Your task to perform on an android device: What is the news today? Image 0: 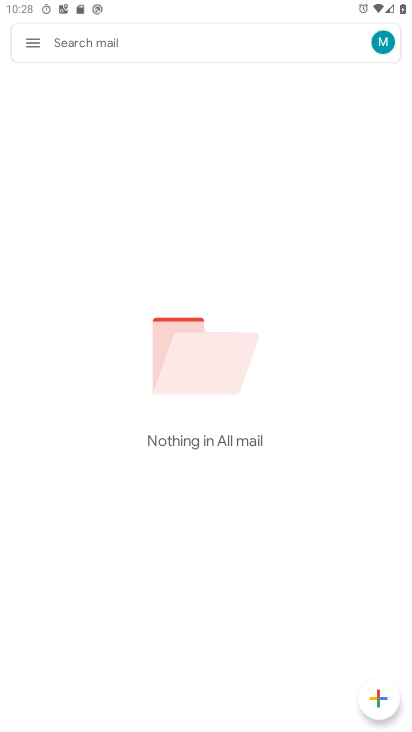
Step 0: press home button
Your task to perform on an android device: What is the news today? Image 1: 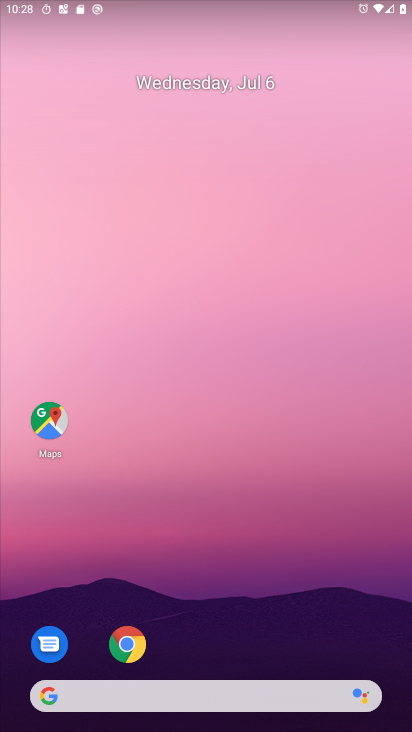
Step 1: drag from (297, 576) to (301, 58)
Your task to perform on an android device: What is the news today? Image 2: 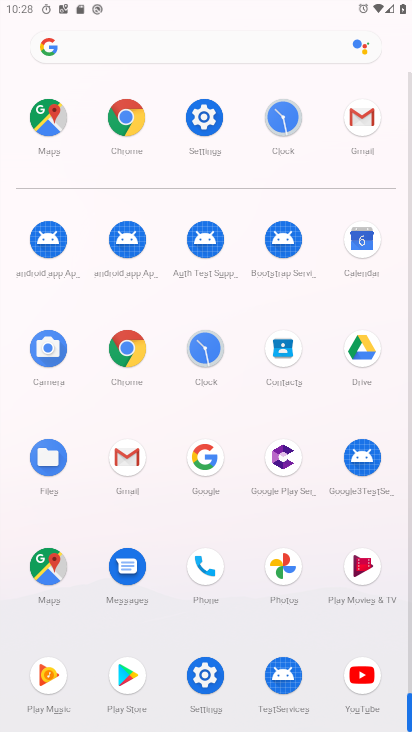
Step 2: click (202, 461)
Your task to perform on an android device: What is the news today? Image 3: 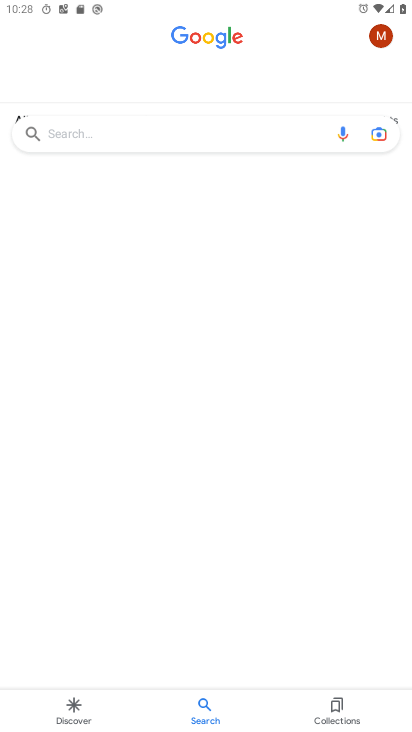
Step 3: click (144, 142)
Your task to perform on an android device: What is the news today? Image 4: 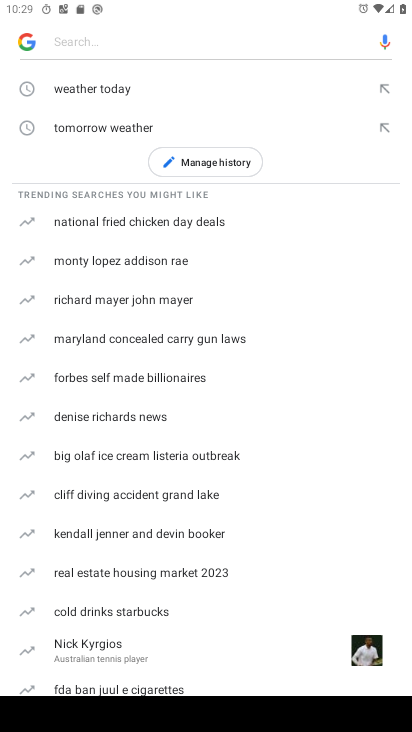
Step 4: type "news"
Your task to perform on an android device: What is the news today? Image 5: 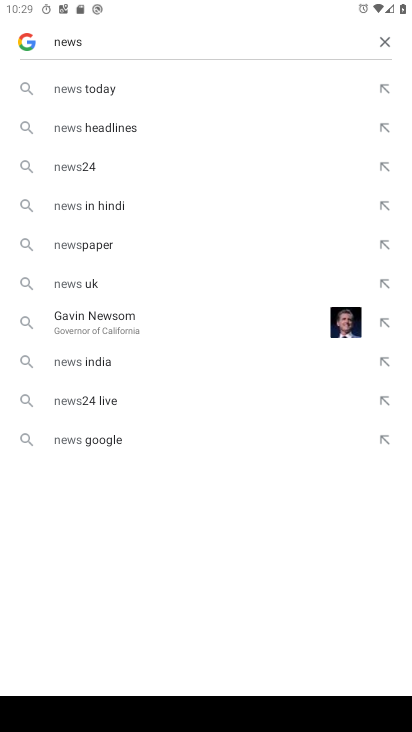
Step 5: click (153, 91)
Your task to perform on an android device: What is the news today? Image 6: 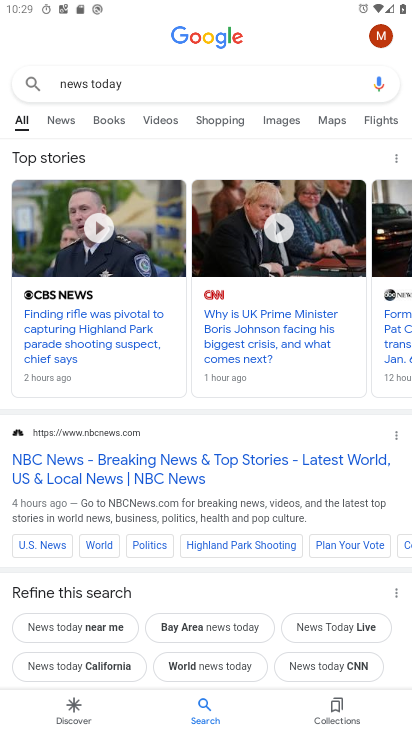
Step 6: task complete